Your task to perform on an android device: Search for the best movies of 2019  Image 0: 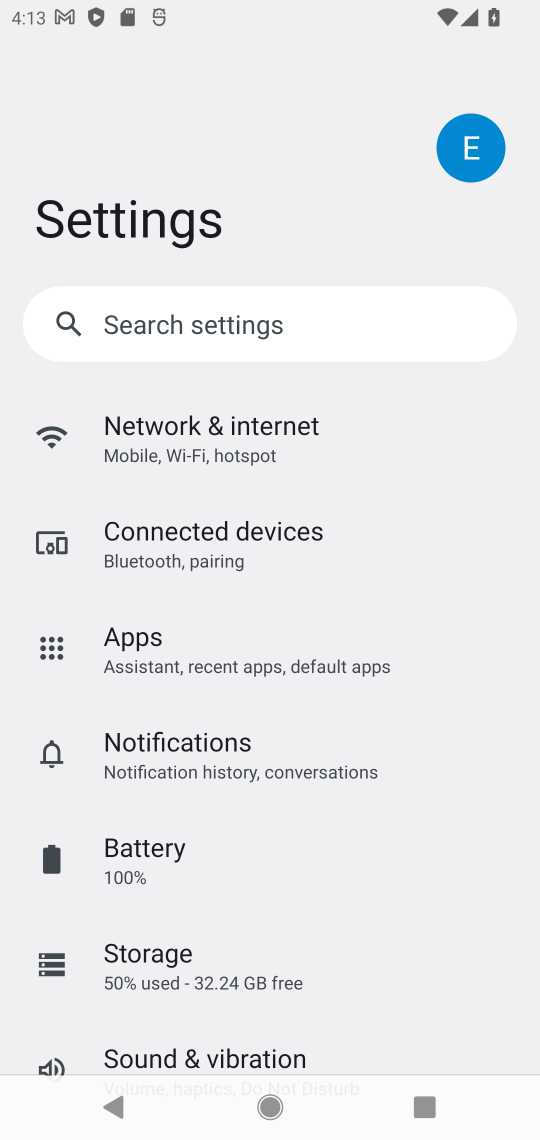
Step 0: press home button
Your task to perform on an android device: Search for the best movies of 2019  Image 1: 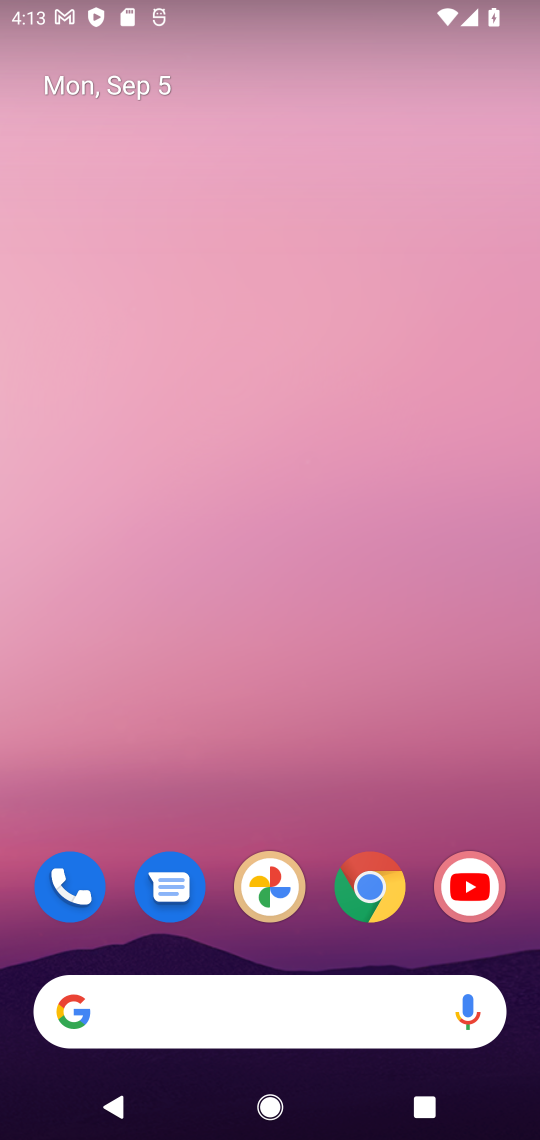
Step 1: drag from (326, 796) to (497, 48)
Your task to perform on an android device: Search for the best movies of 2019  Image 2: 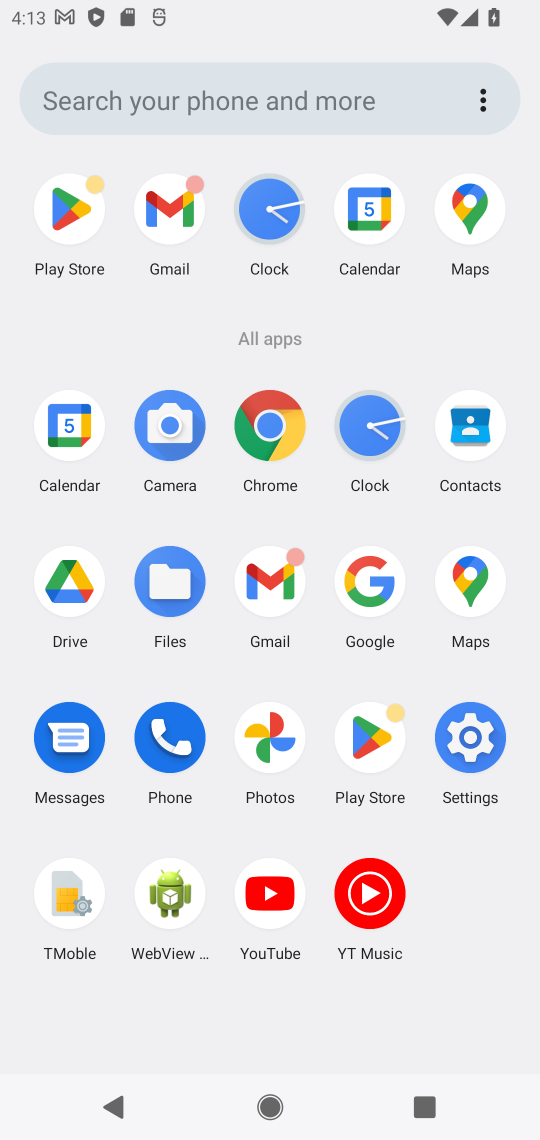
Step 2: click (261, 432)
Your task to perform on an android device: Search for the best movies of 2019  Image 3: 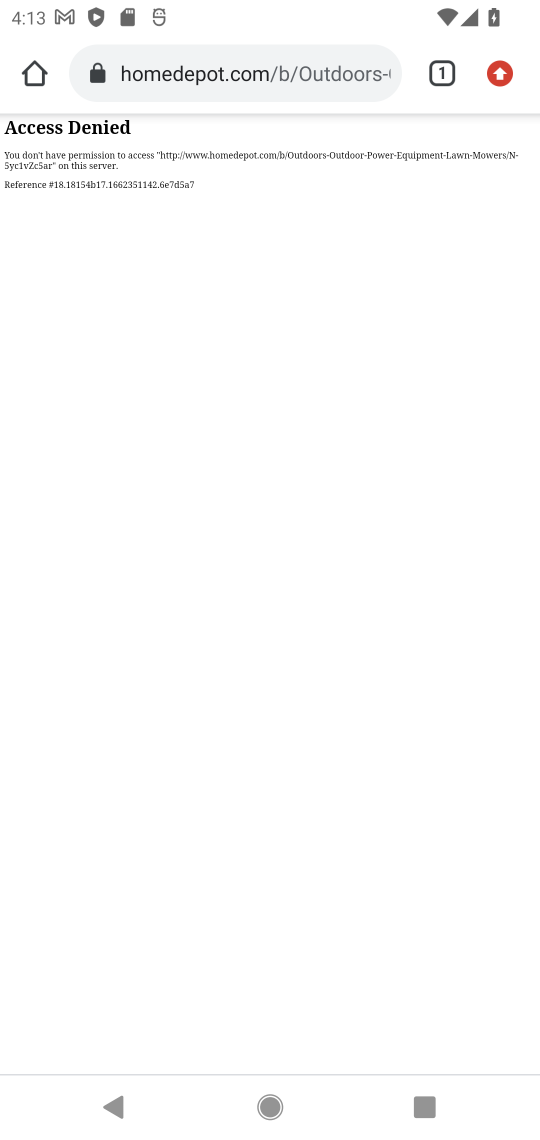
Step 3: click (278, 77)
Your task to perform on an android device: Search for the best movies of 2019  Image 4: 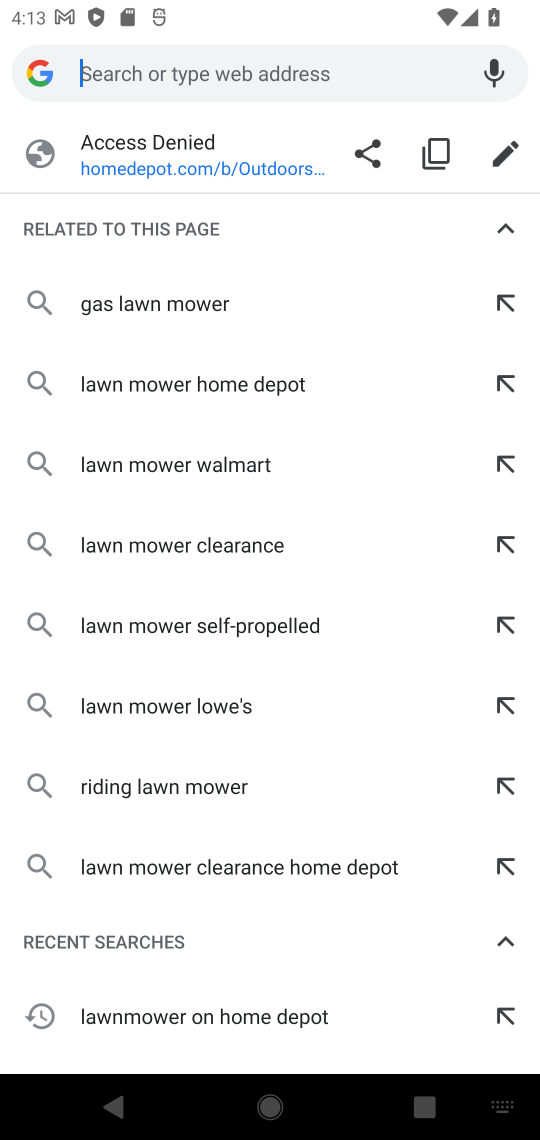
Step 4: type "best movies of 2019"
Your task to perform on an android device: Search for the best movies of 2019  Image 5: 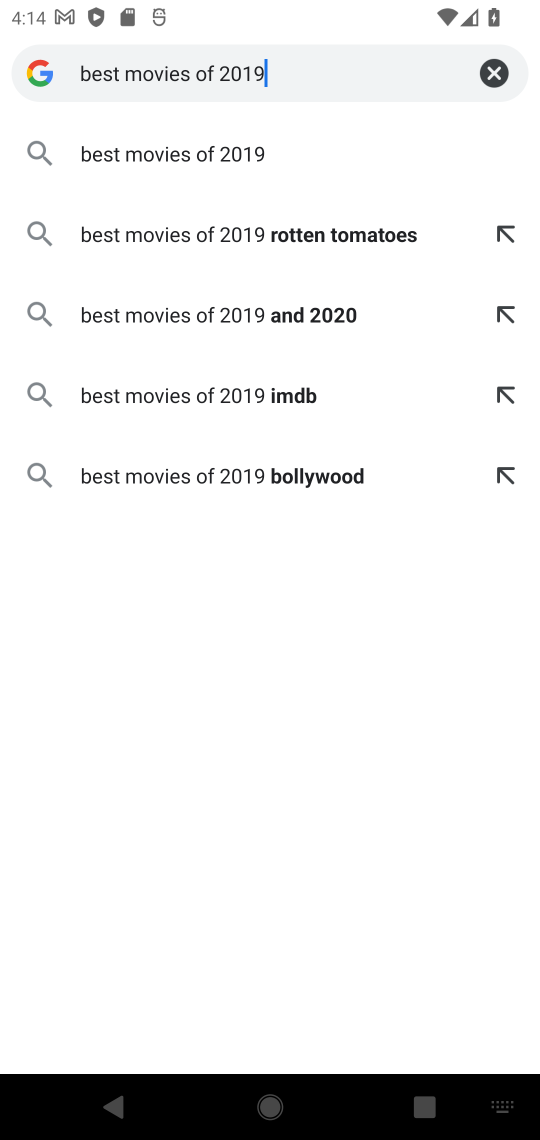
Step 5: press enter
Your task to perform on an android device: Search for the best movies of 2019  Image 6: 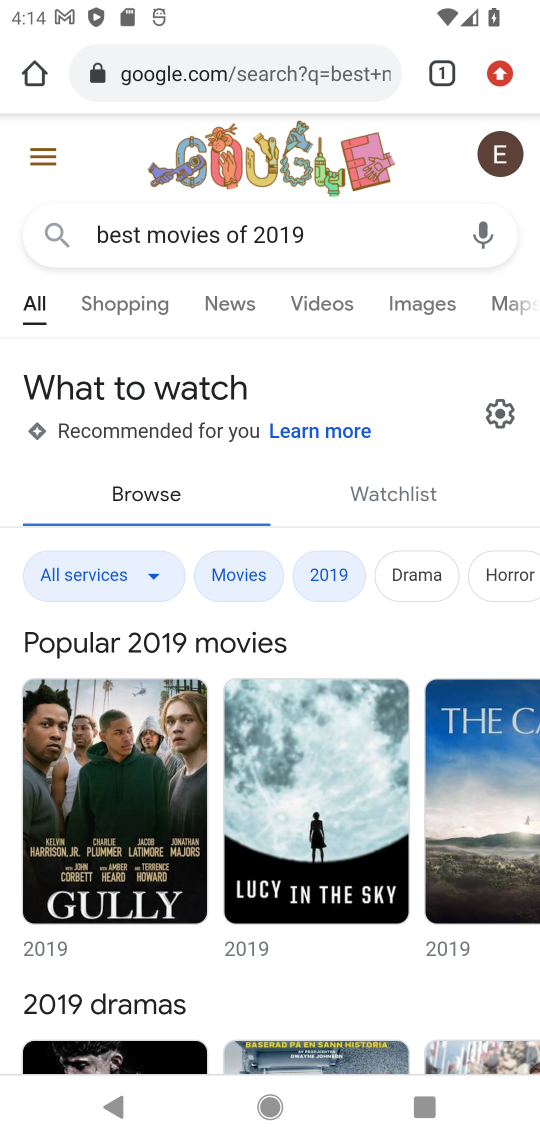
Step 6: drag from (281, 1008) to (447, 88)
Your task to perform on an android device: Search for the best movies of 2019  Image 7: 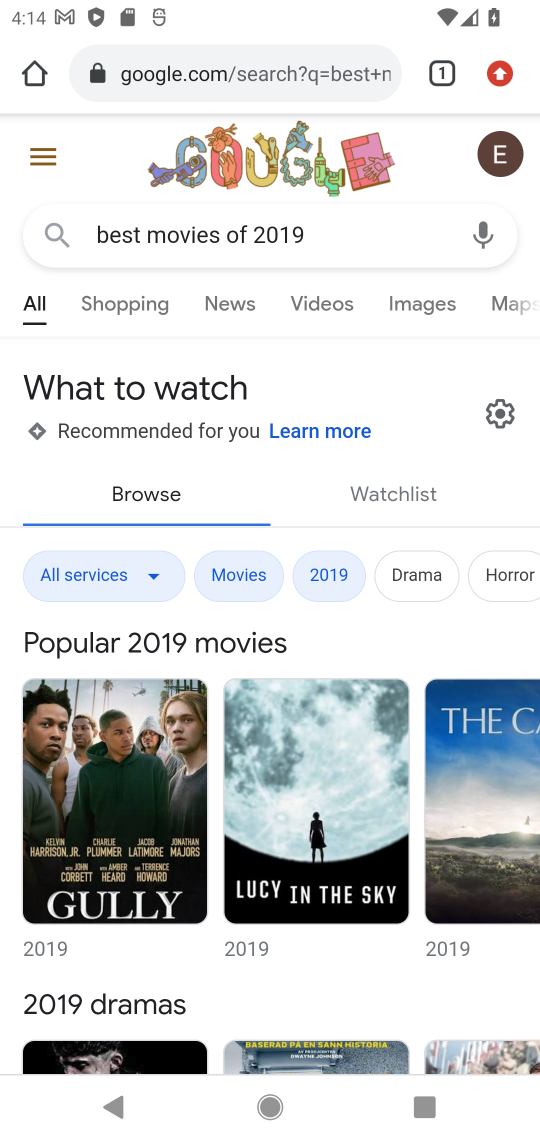
Step 7: drag from (269, 987) to (357, 243)
Your task to perform on an android device: Search for the best movies of 2019  Image 8: 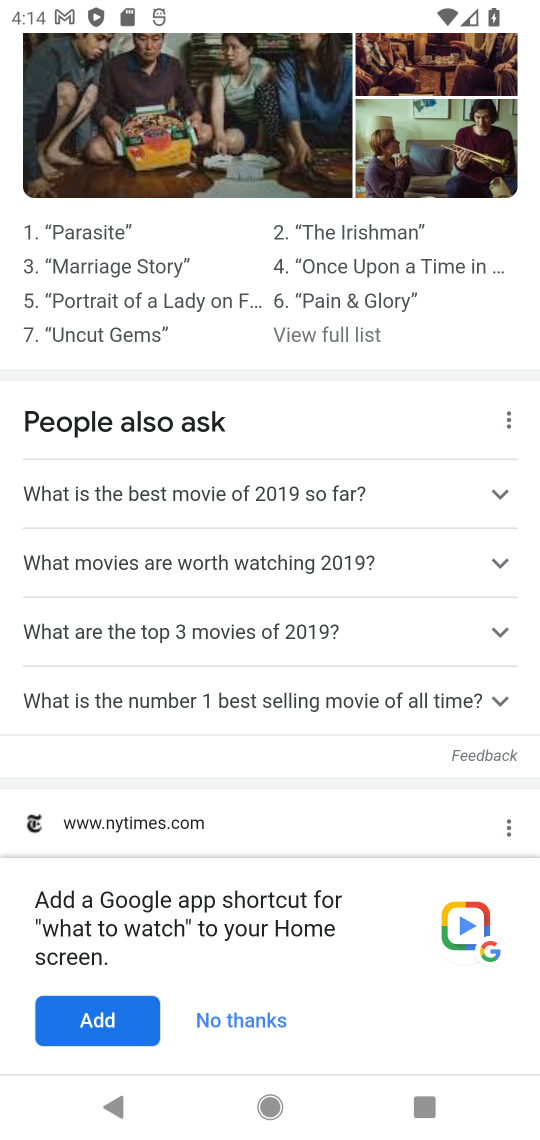
Step 8: drag from (401, 668) to (389, 422)
Your task to perform on an android device: Search for the best movies of 2019  Image 9: 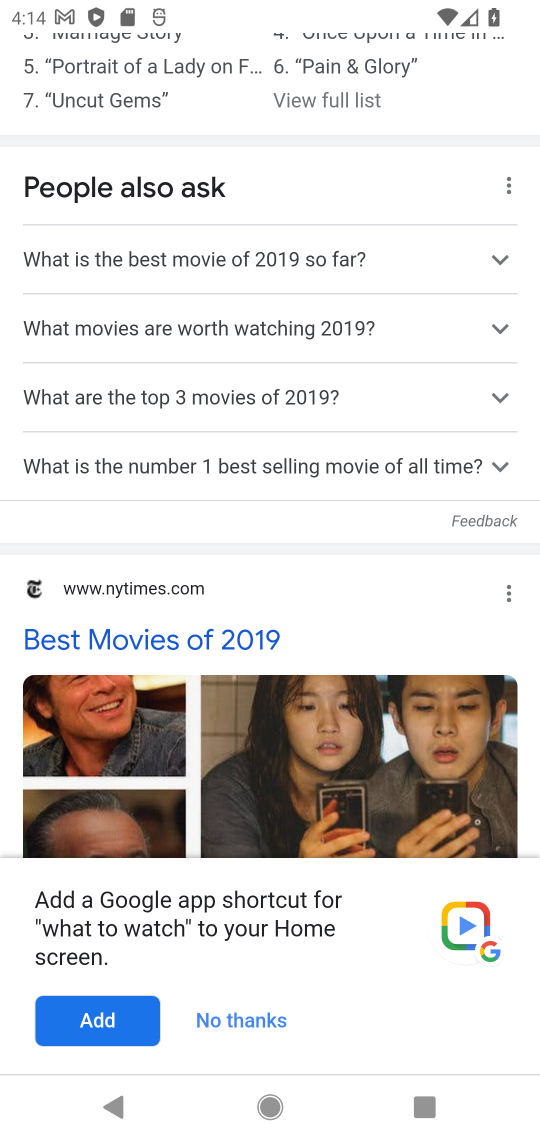
Step 9: click (161, 640)
Your task to perform on an android device: Search for the best movies of 2019  Image 10: 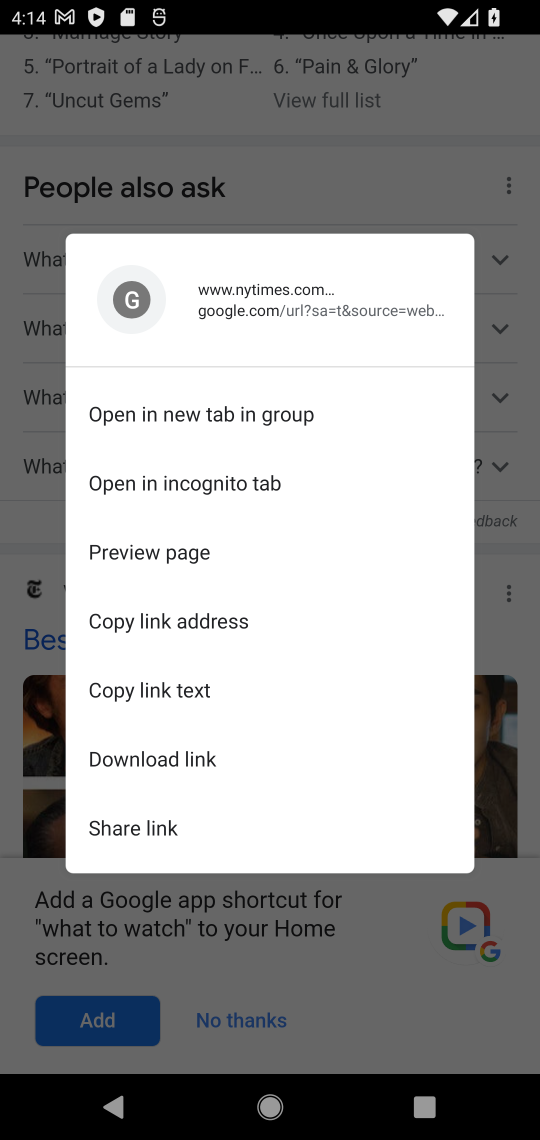
Step 10: click (533, 705)
Your task to perform on an android device: Search for the best movies of 2019  Image 11: 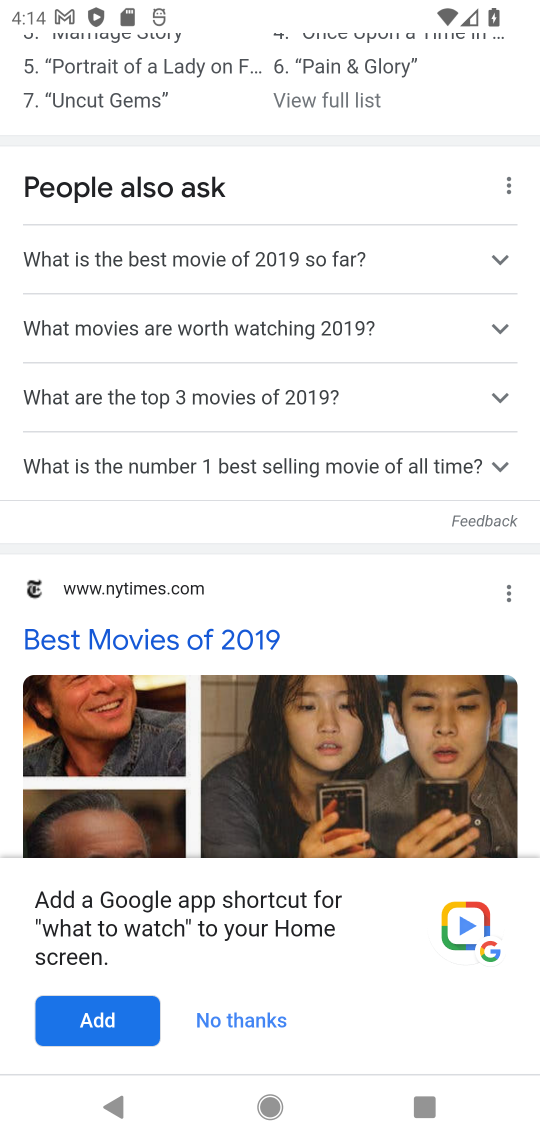
Step 11: click (121, 635)
Your task to perform on an android device: Search for the best movies of 2019  Image 12: 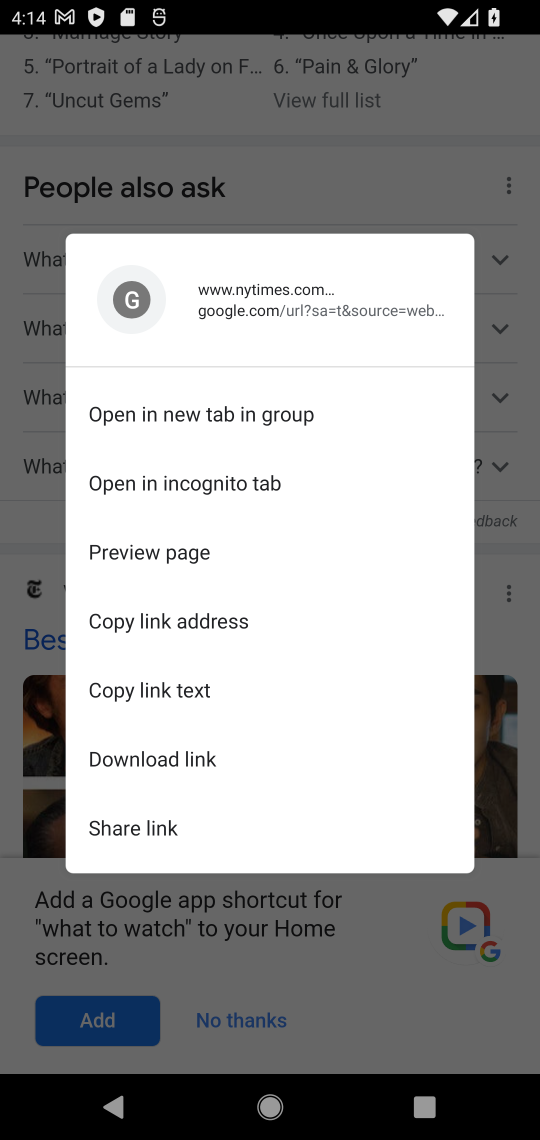
Step 12: click (33, 635)
Your task to perform on an android device: Search for the best movies of 2019  Image 13: 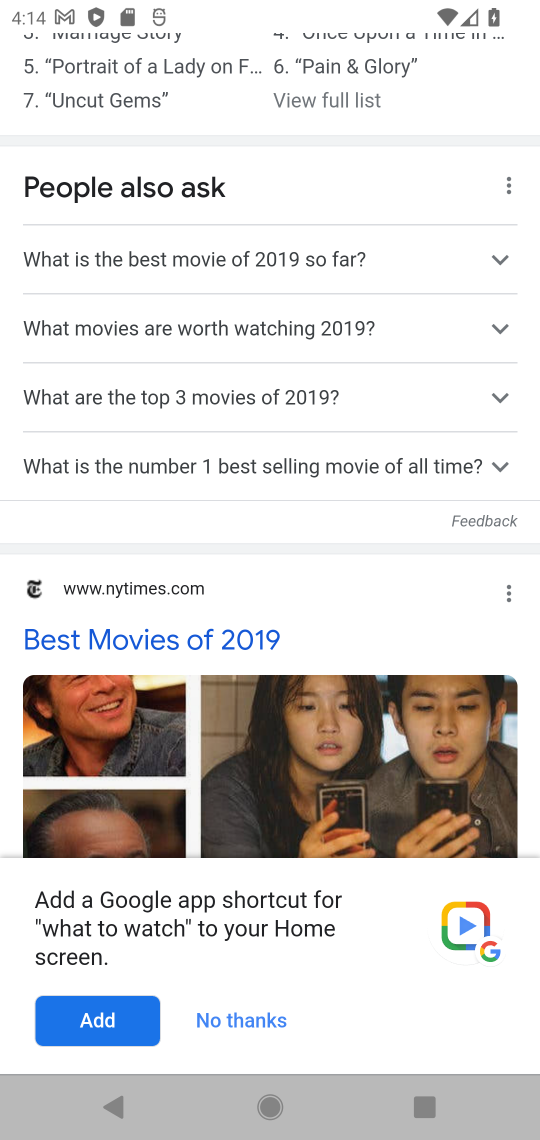
Step 13: click (33, 635)
Your task to perform on an android device: Search for the best movies of 2019  Image 14: 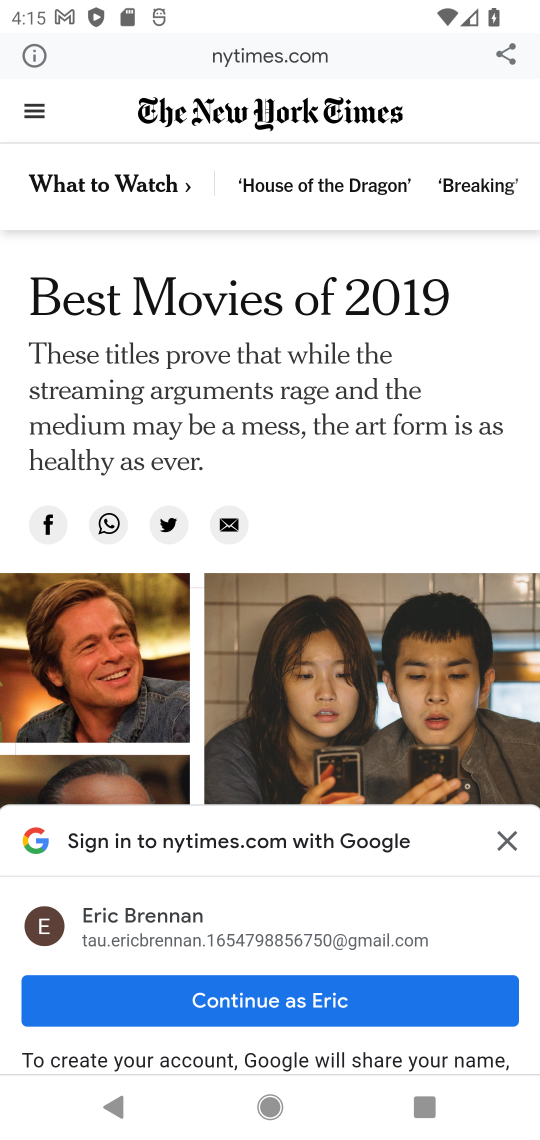
Step 14: task complete